Your task to perform on an android device: Turn off the flashlight Image 0: 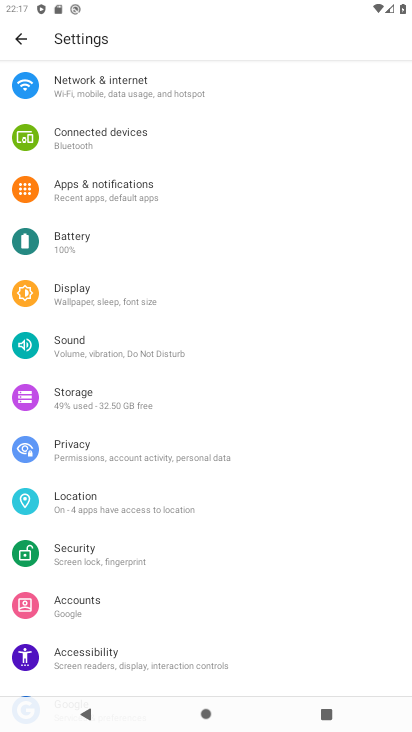
Step 0: press home button
Your task to perform on an android device: Turn off the flashlight Image 1: 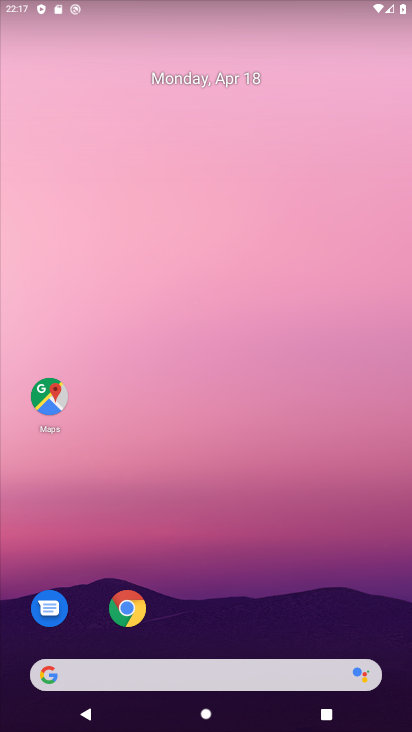
Step 1: drag from (240, 539) to (264, 150)
Your task to perform on an android device: Turn off the flashlight Image 2: 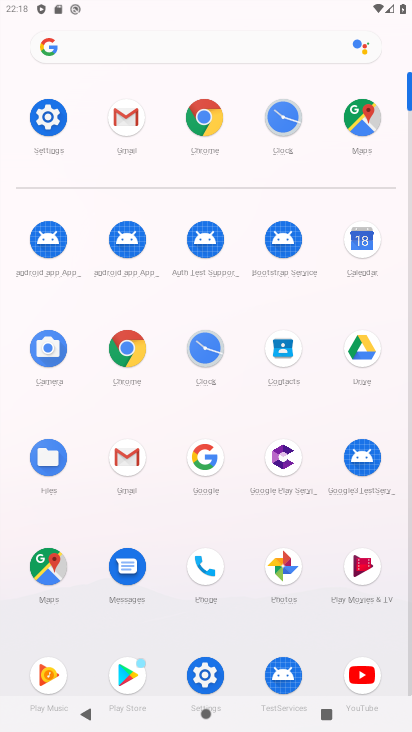
Step 2: click (44, 117)
Your task to perform on an android device: Turn off the flashlight Image 3: 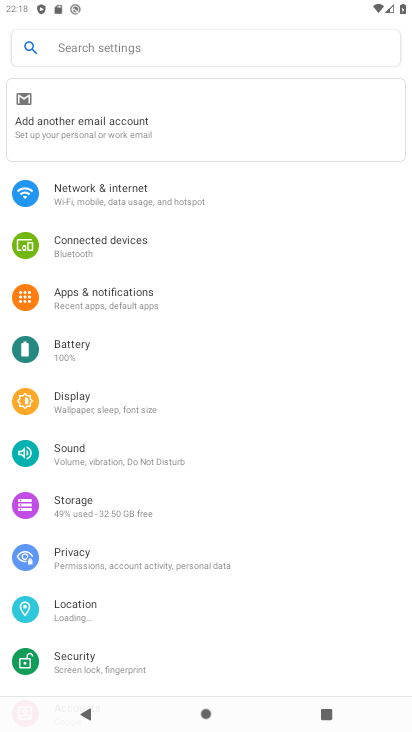
Step 3: click (159, 47)
Your task to perform on an android device: Turn off the flashlight Image 4: 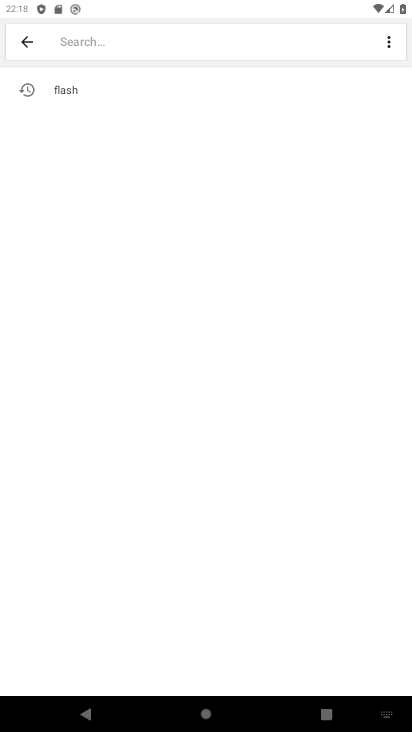
Step 4: type "flash"
Your task to perform on an android device: Turn off the flashlight Image 5: 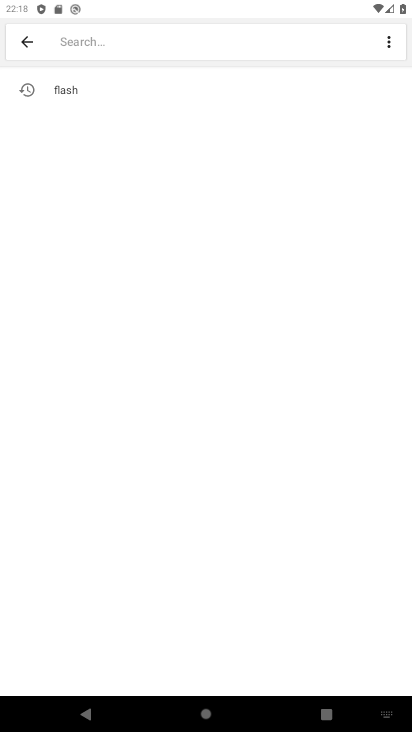
Step 5: click (154, 93)
Your task to perform on an android device: Turn off the flashlight Image 6: 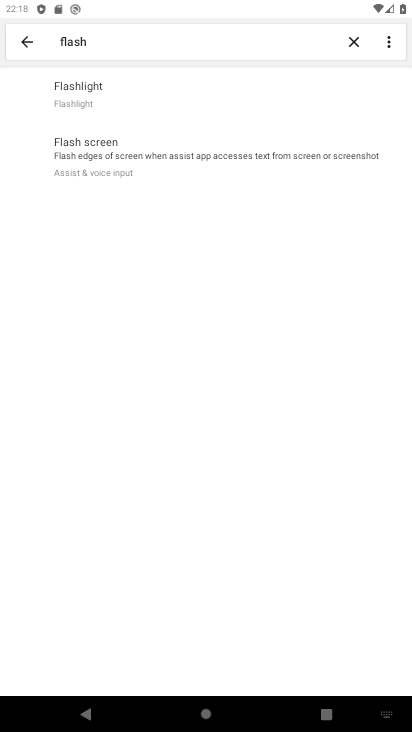
Step 6: task complete